Your task to perform on an android device: open app "Pandora - Music & Podcasts" Image 0: 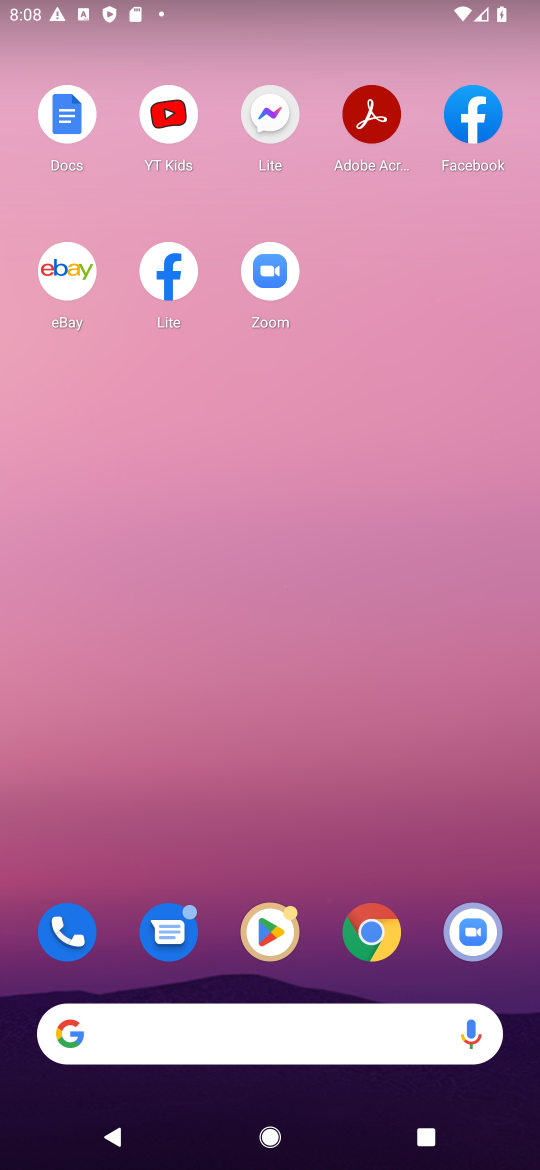
Step 0: click (276, 946)
Your task to perform on an android device: open app "Pandora - Music & Podcasts" Image 1: 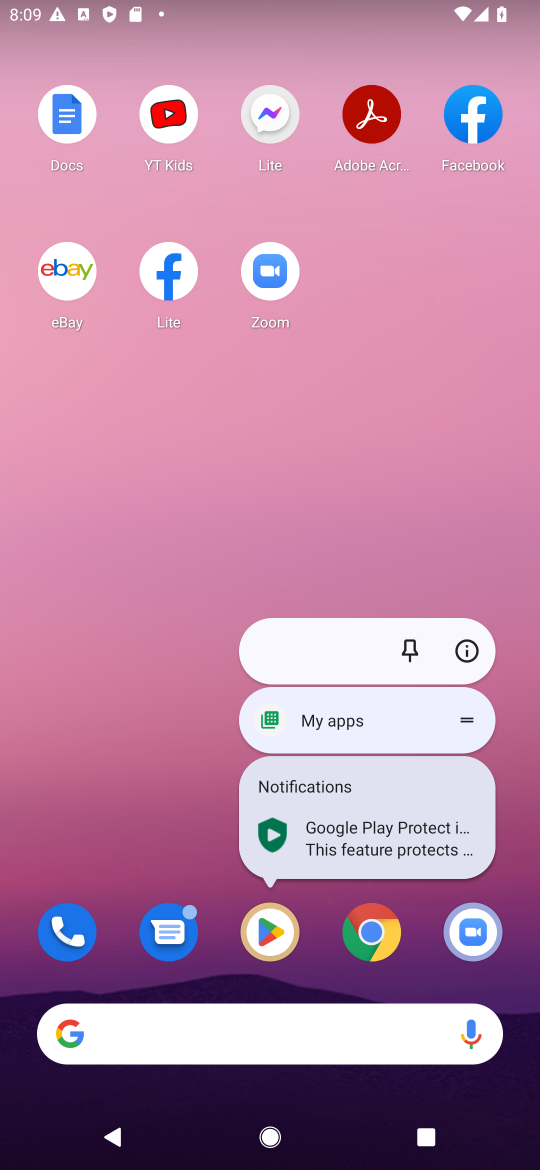
Step 1: click (302, 920)
Your task to perform on an android device: open app "Pandora - Music & Podcasts" Image 2: 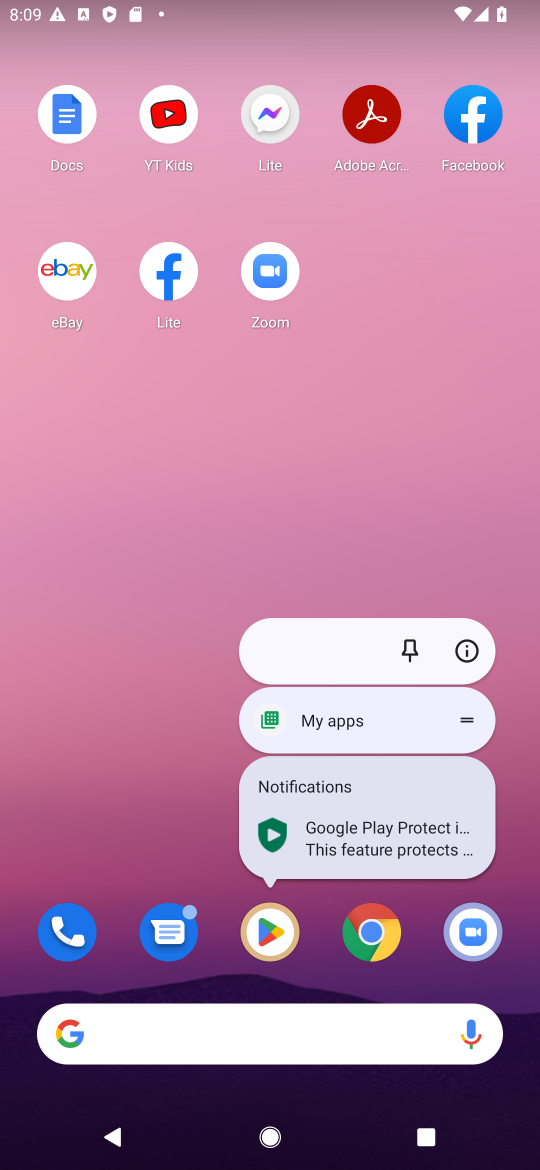
Step 2: click (259, 957)
Your task to perform on an android device: open app "Pandora - Music & Podcasts" Image 3: 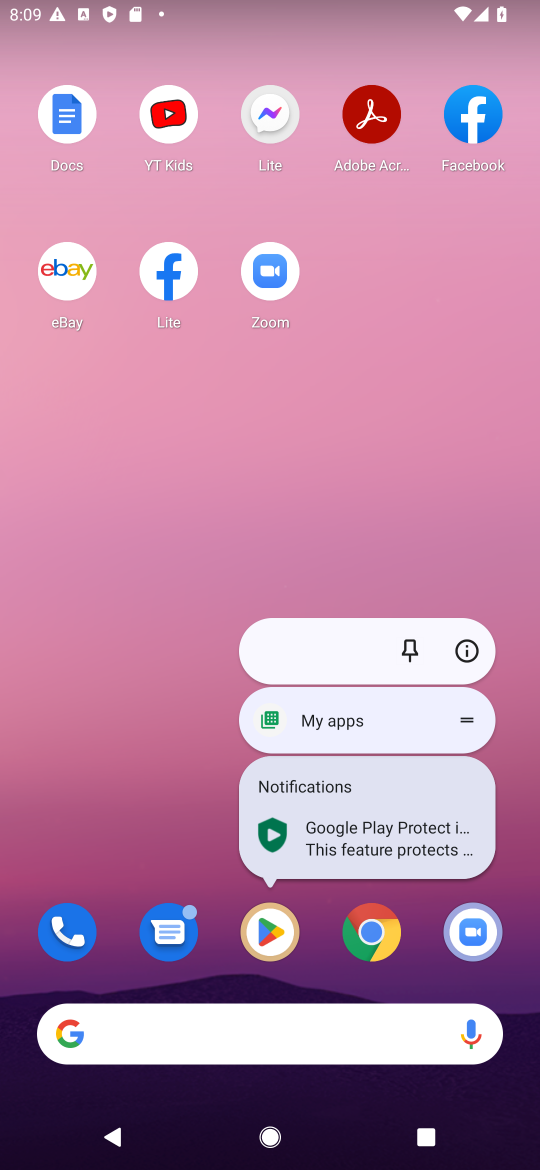
Step 3: click (259, 957)
Your task to perform on an android device: open app "Pandora - Music & Podcasts" Image 4: 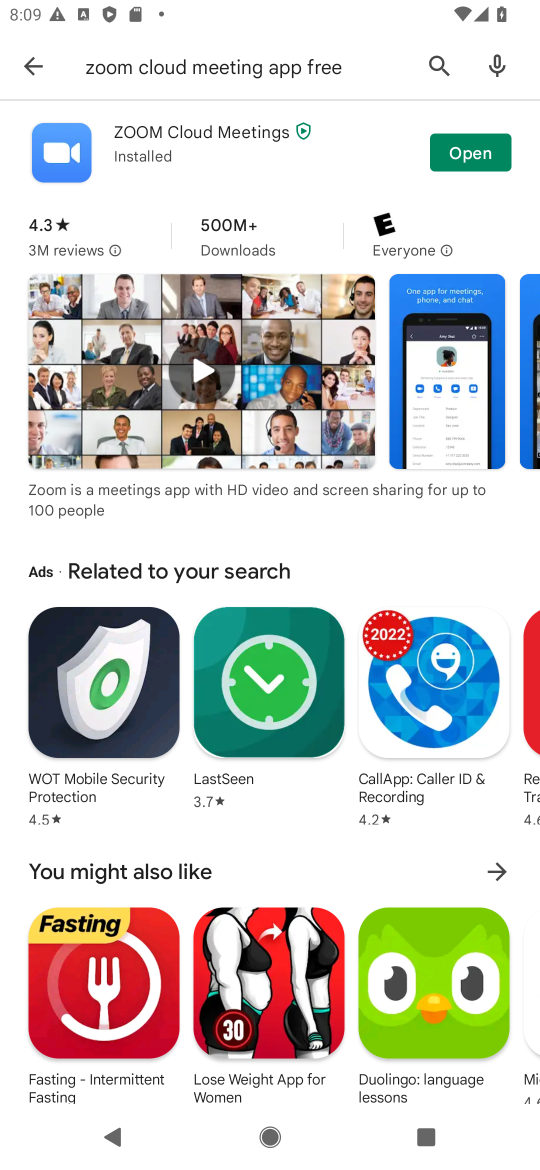
Step 4: click (221, 73)
Your task to perform on an android device: open app "Pandora - Music & Podcasts" Image 5: 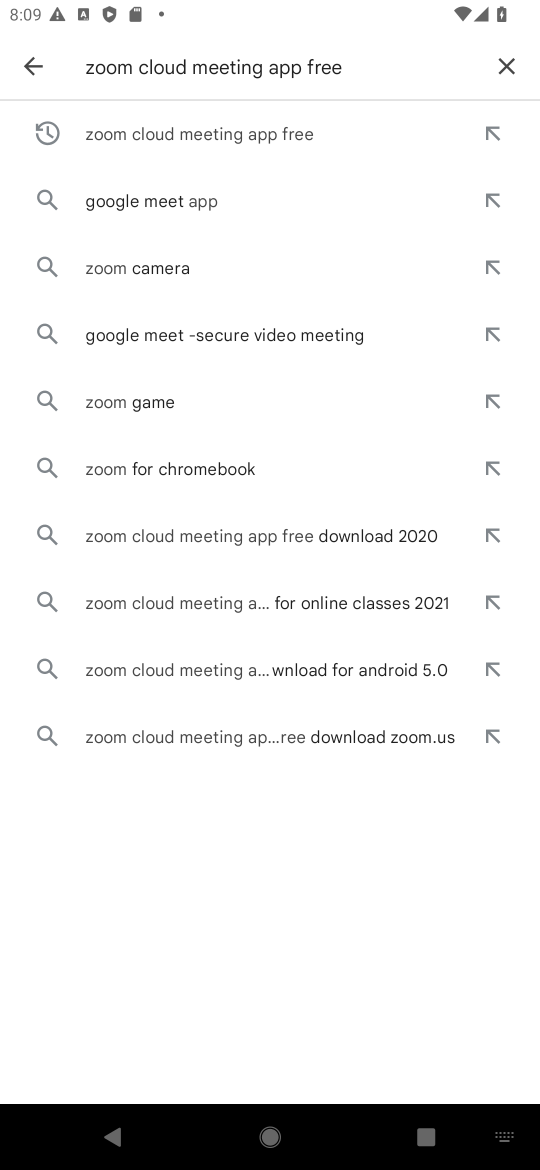
Step 5: click (500, 52)
Your task to perform on an android device: open app "Pandora - Music & Podcasts" Image 6: 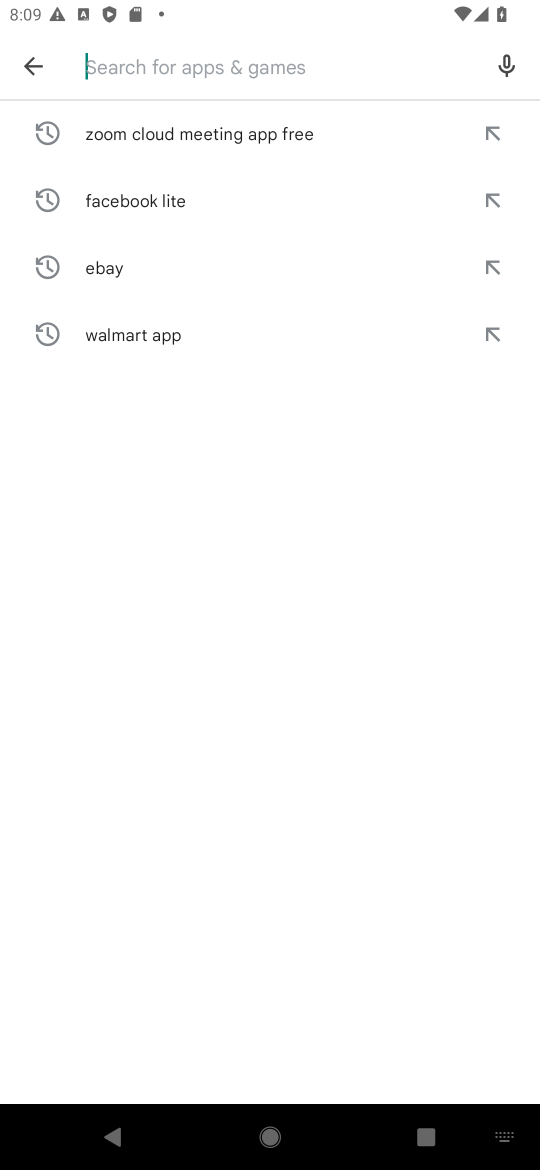
Step 6: type "pandora"
Your task to perform on an android device: open app "Pandora - Music & Podcasts" Image 7: 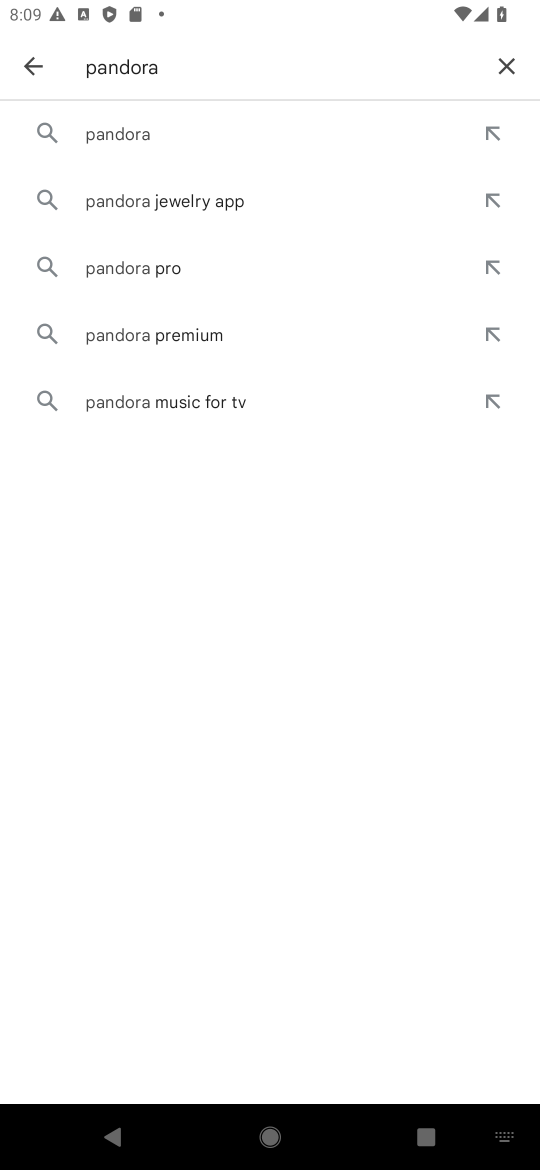
Step 7: click (132, 145)
Your task to perform on an android device: open app "Pandora - Music & Podcasts" Image 8: 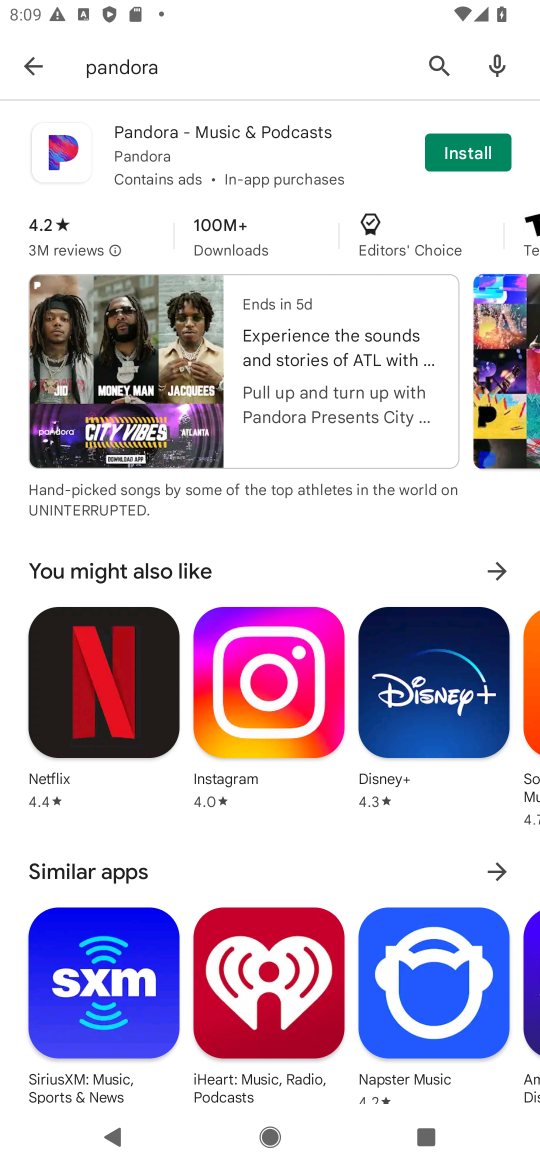
Step 8: task complete